Your task to perform on an android device: Search for the best rated headphones on Walmart Image 0: 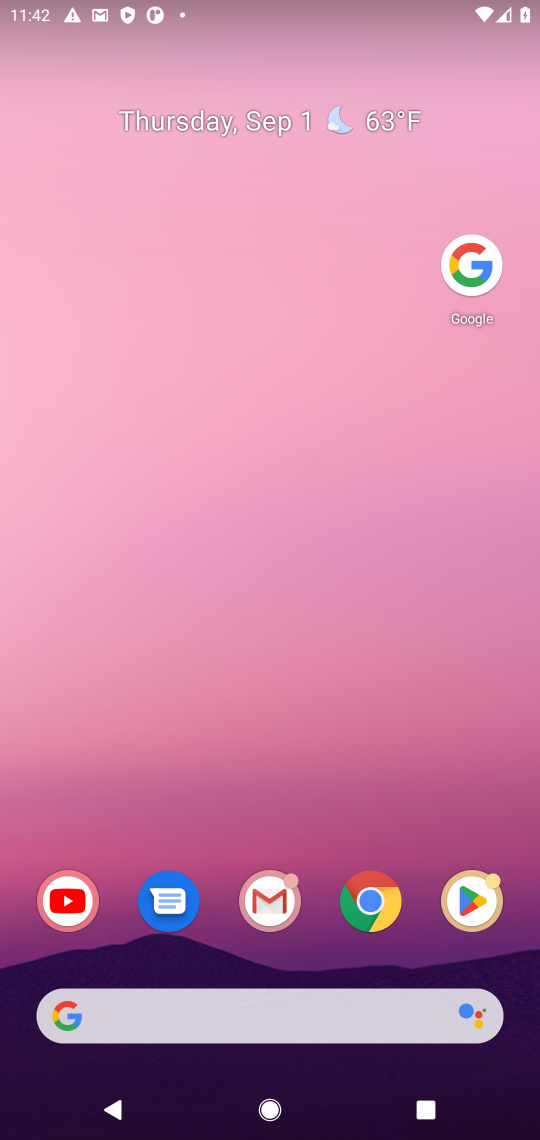
Step 0: click (245, 388)
Your task to perform on an android device: Search for the best rated headphones on Walmart Image 1: 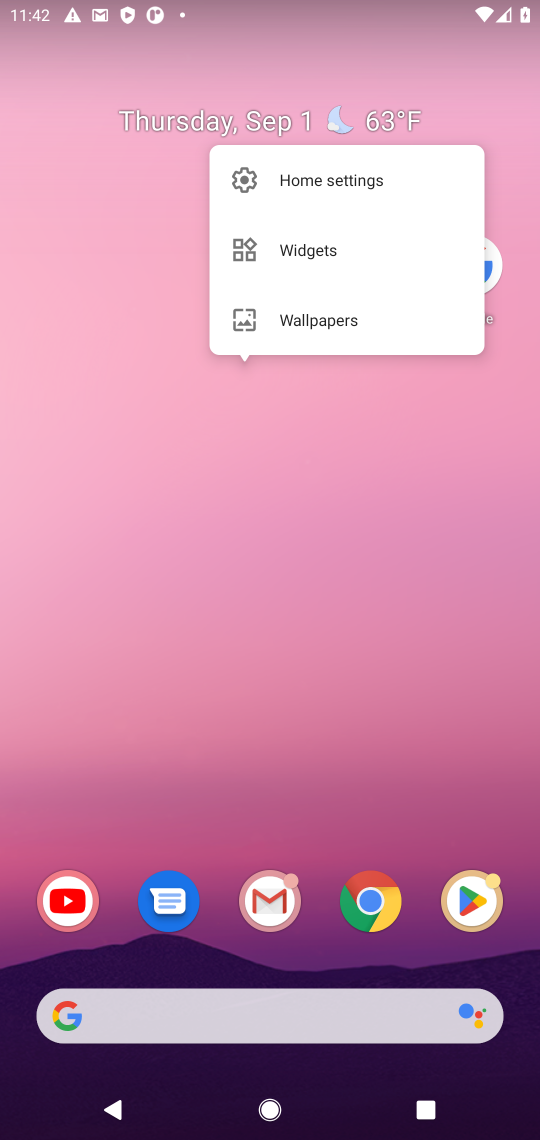
Step 1: click (375, 521)
Your task to perform on an android device: Search for the best rated headphones on Walmart Image 2: 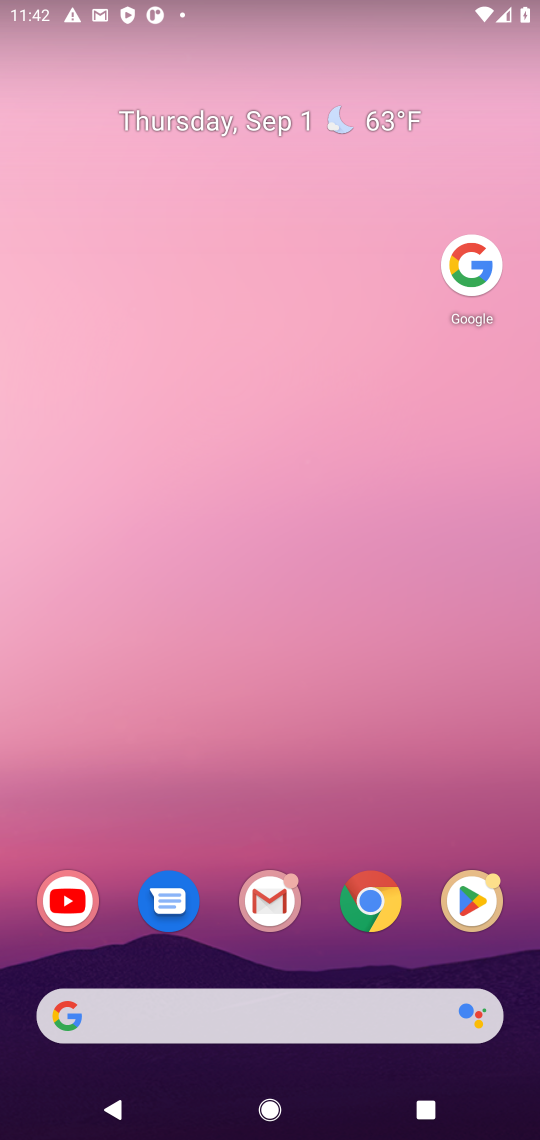
Step 2: click (489, 274)
Your task to perform on an android device: Search for the best rated headphones on Walmart Image 3: 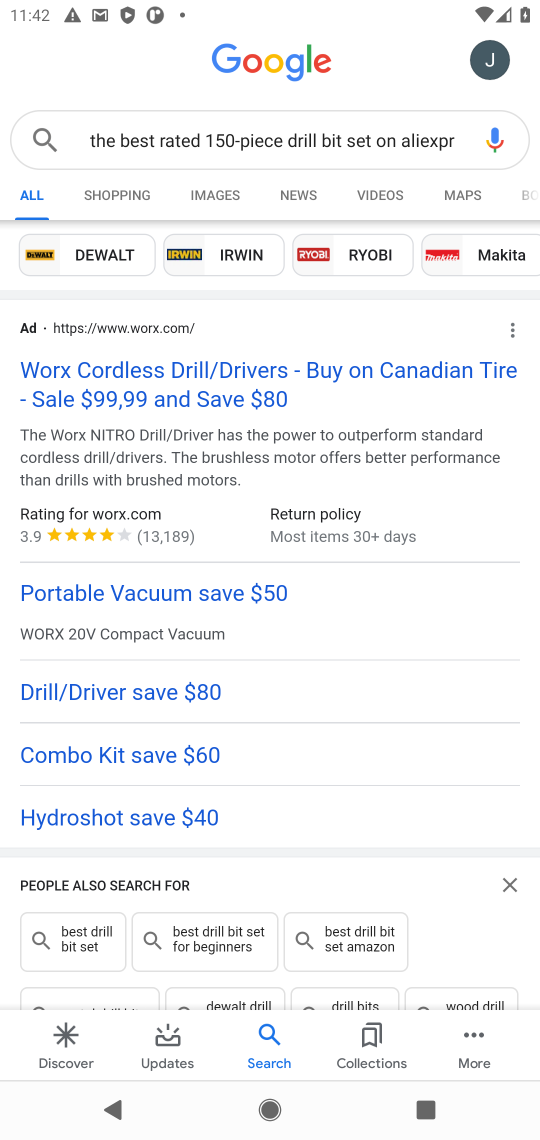
Step 3: click (363, 132)
Your task to perform on an android device: Search for the best rated headphones on Walmart Image 4: 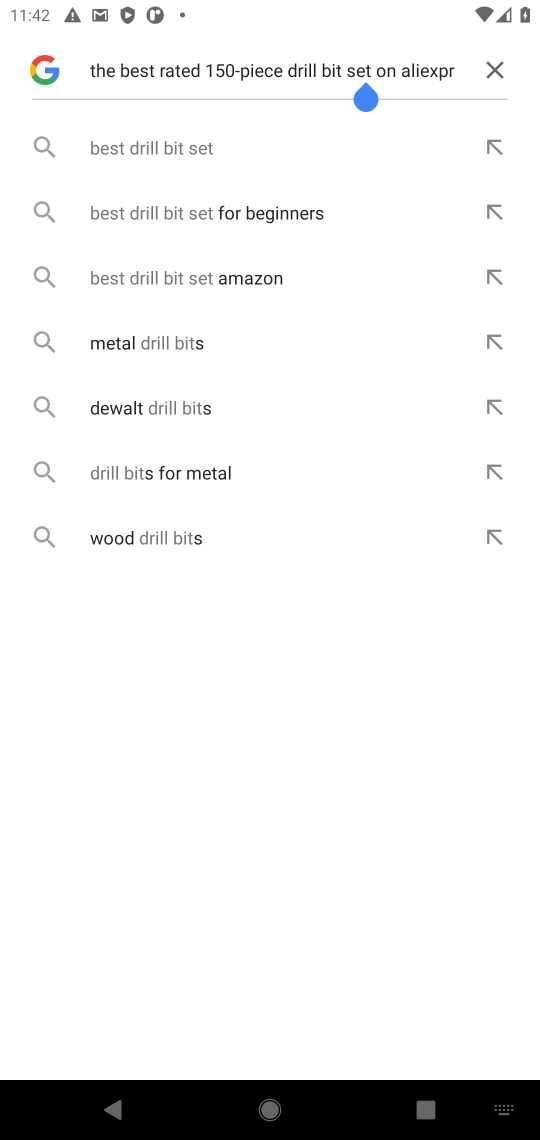
Step 4: click (496, 66)
Your task to perform on an android device: Search for the best rated headphones on Walmart Image 5: 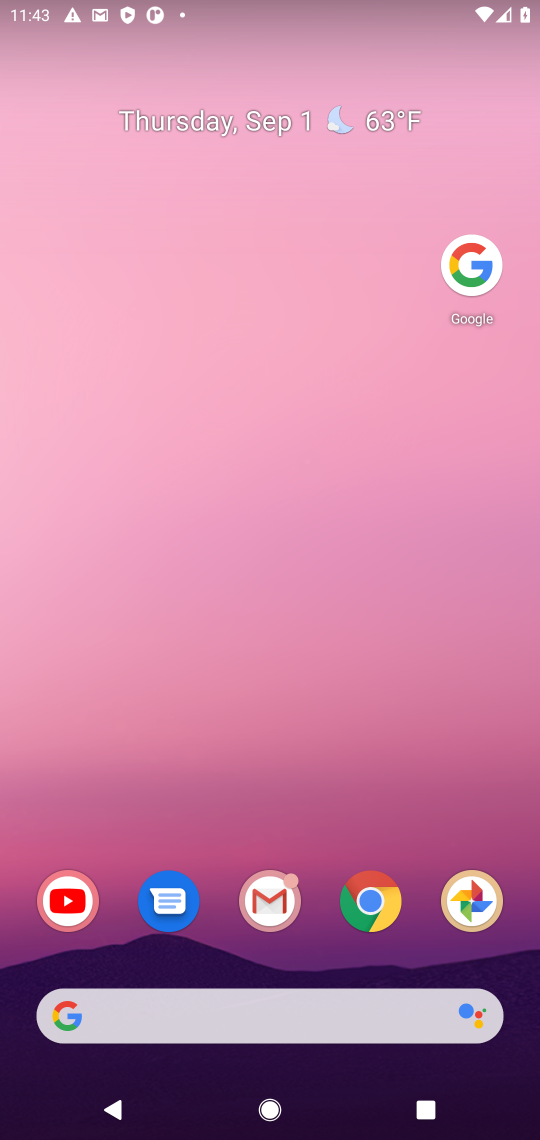
Step 5: click (472, 246)
Your task to perform on an android device: Search for the best rated headphones on Walmart Image 6: 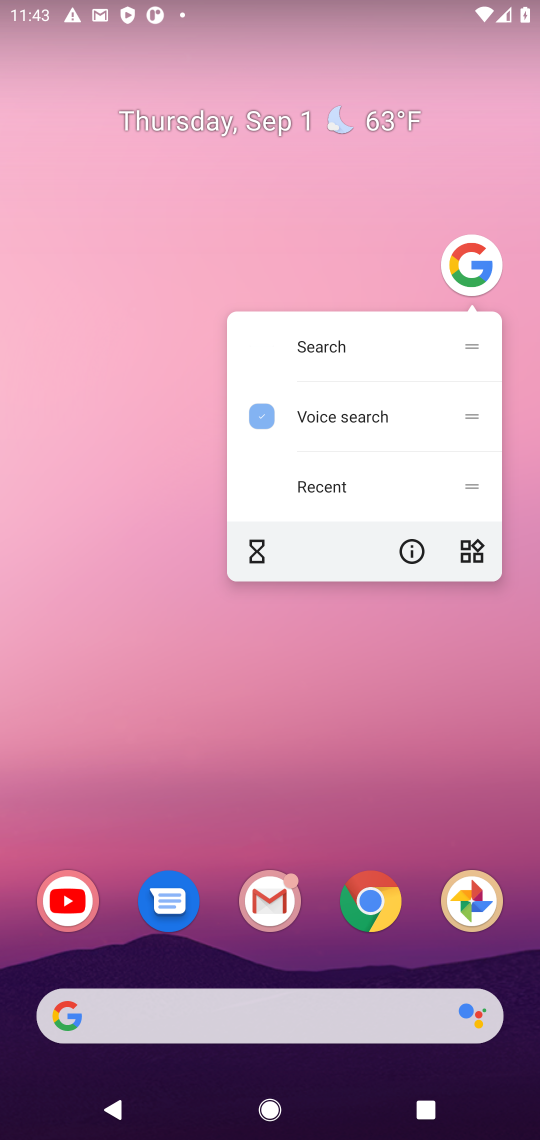
Step 6: click (472, 246)
Your task to perform on an android device: Search for the best rated headphones on Walmart Image 7: 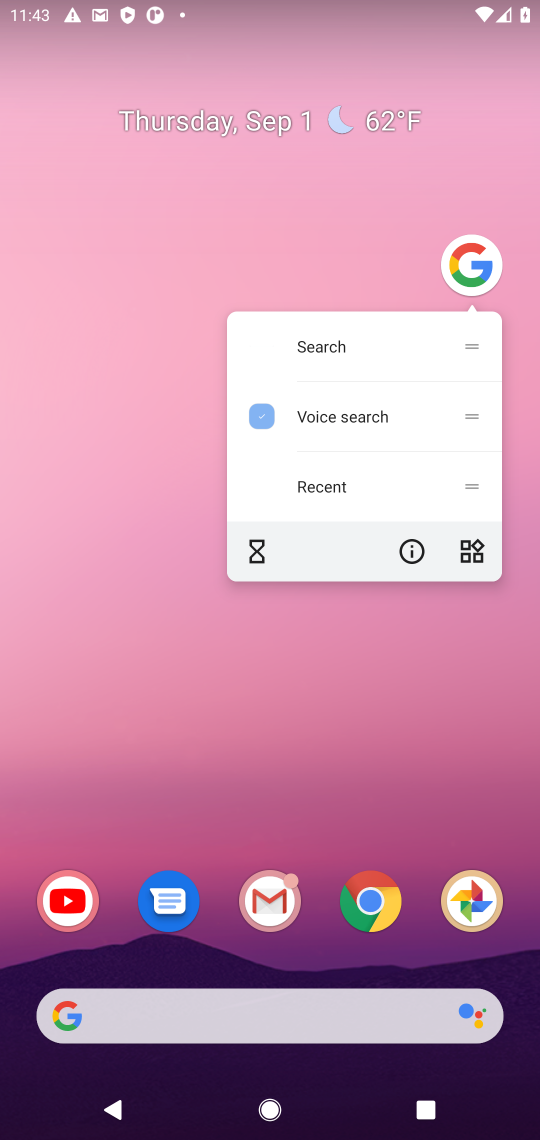
Step 7: click (469, 272)
Your task to perform on an android device: Search for the best rated headphones on Walmart Image 8: 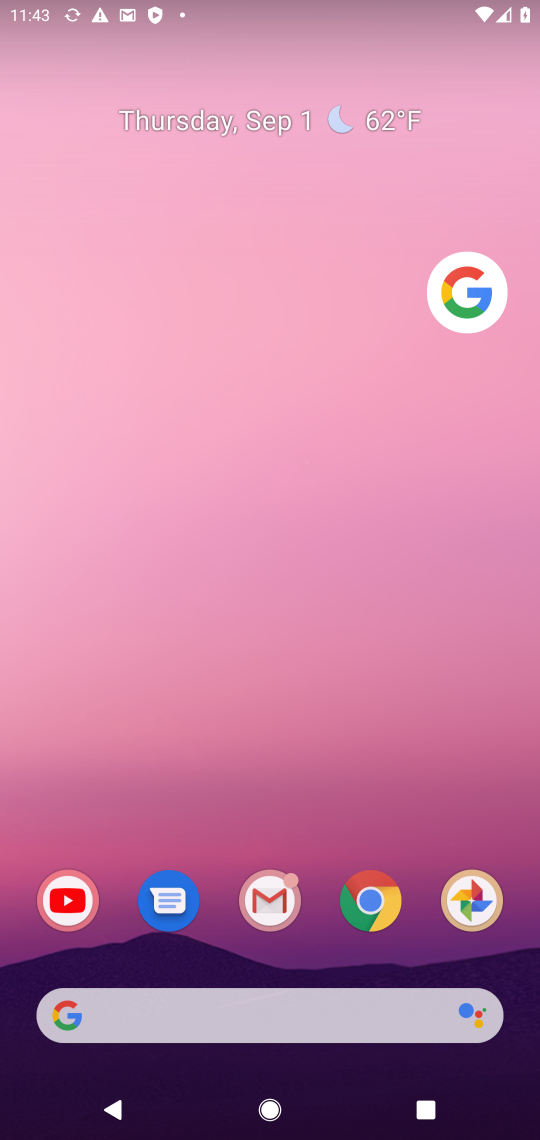
Step 8: click (469, 262)
Your task to perform on an android device: Search for the best rated headphones on Walmart Image 9: 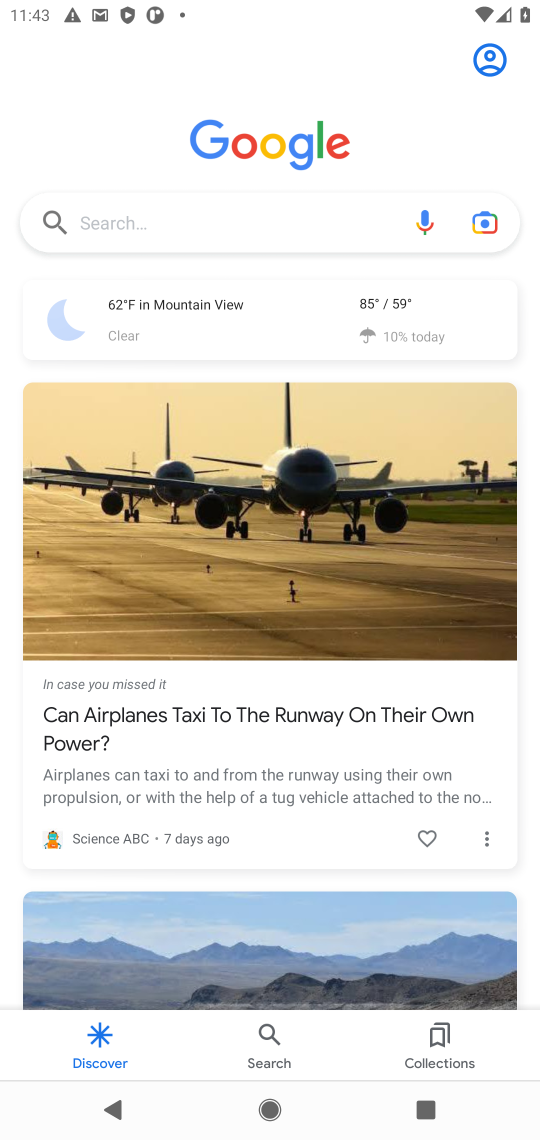
Step 9: click (239, 205)
Your task to perform on an android device: Search for the best rated headphones on Walmart Image 10: 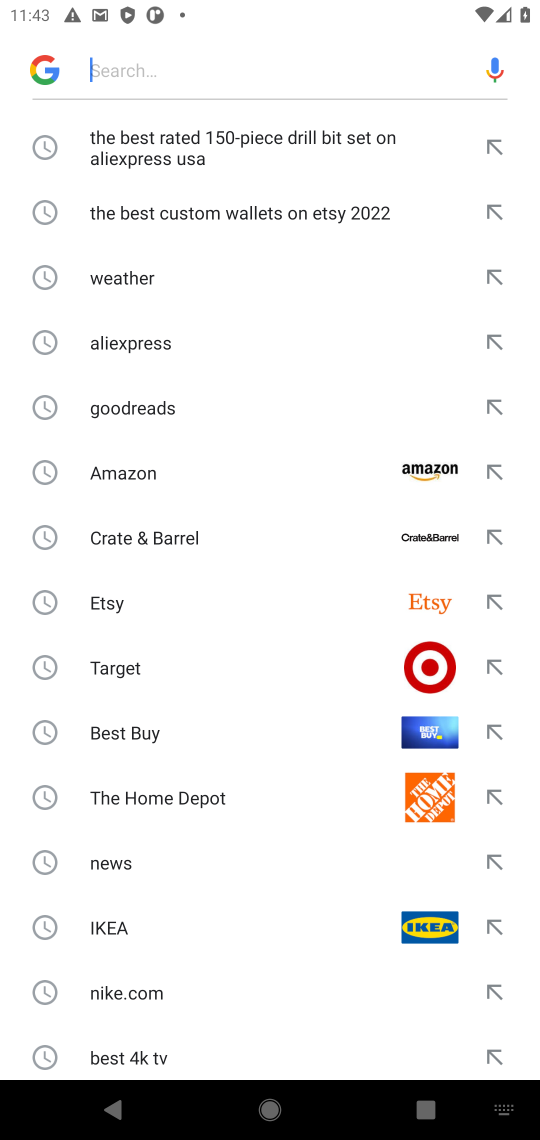
Step 10: type " the best rated headphones on Walmart "
Your task to perform on an android device: Search for the best rated headphones on Walmart Image 11: 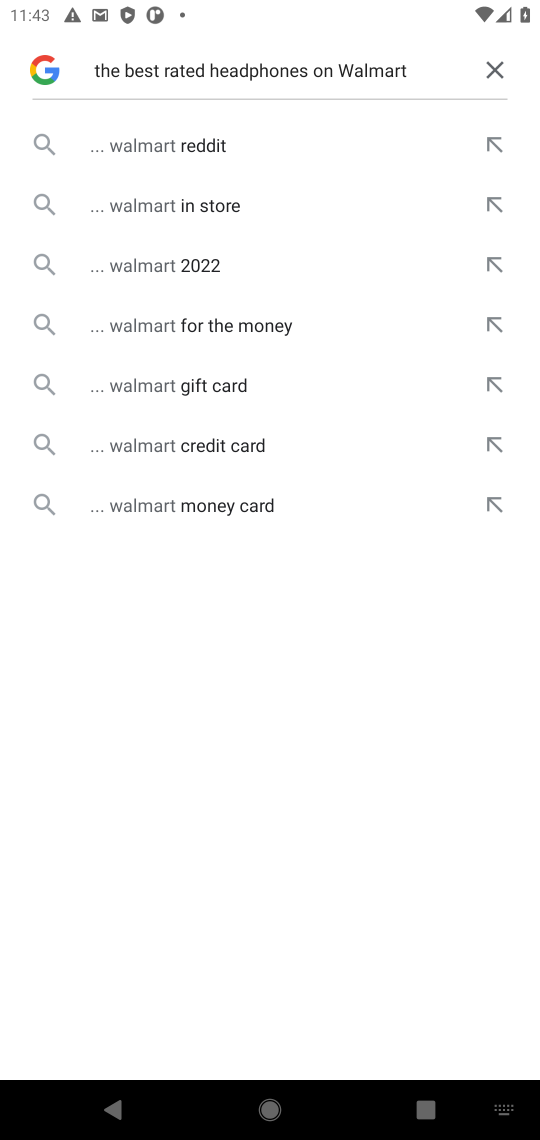
Step 11: click (168, 51)
Your task to perform on an android device: Search for the best rated headphones on Walmart Image 12: 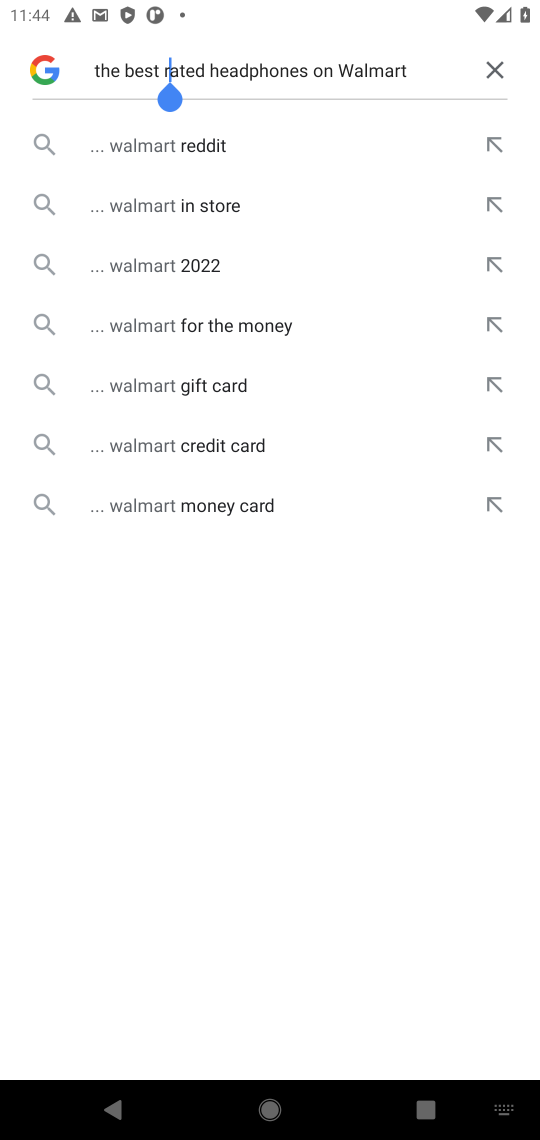
Step 12: click (206, 215)
Your task to perform on an android device: Search for the best rated headphones on Walmart Image 13: 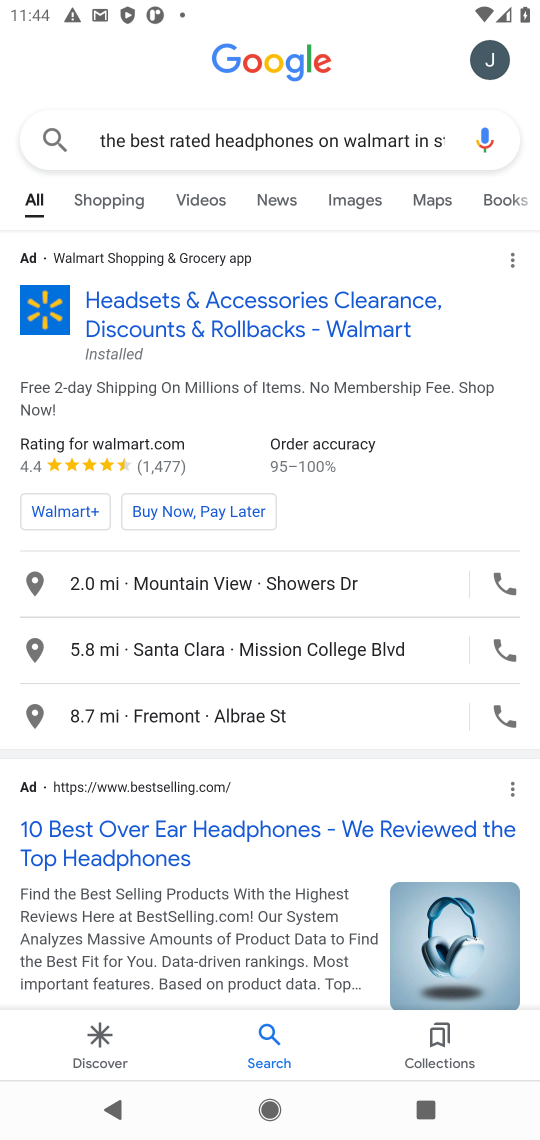
Step 13: click (221, 319)
Your task to perform on an android device: Search for the best rated headphones on Walmart Image 14: 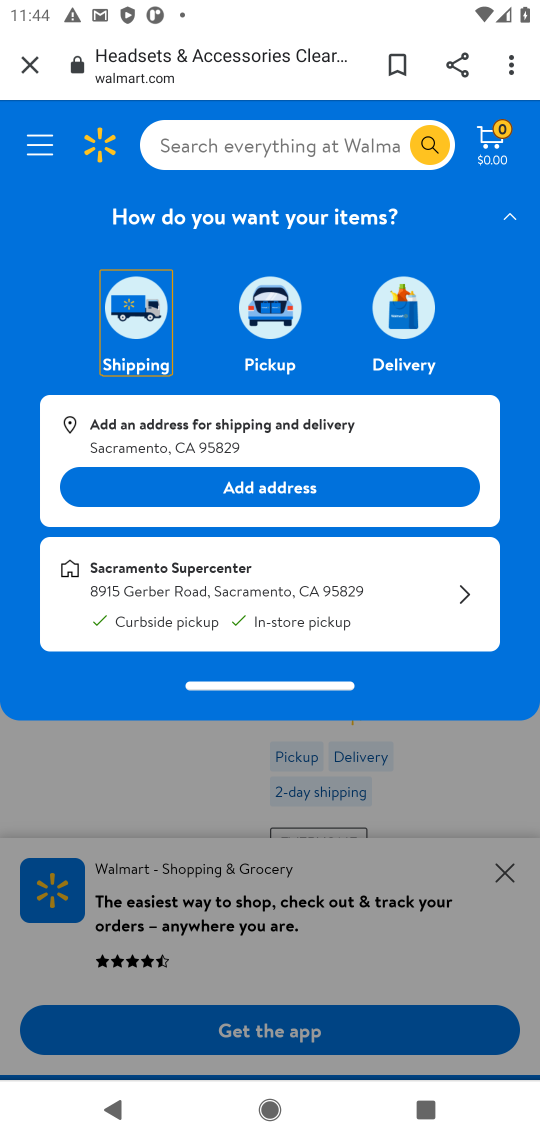
Step 14: click (272, 133)
Your task to perform on an android device: Search for the best rated headphones on Walmart Image 15: 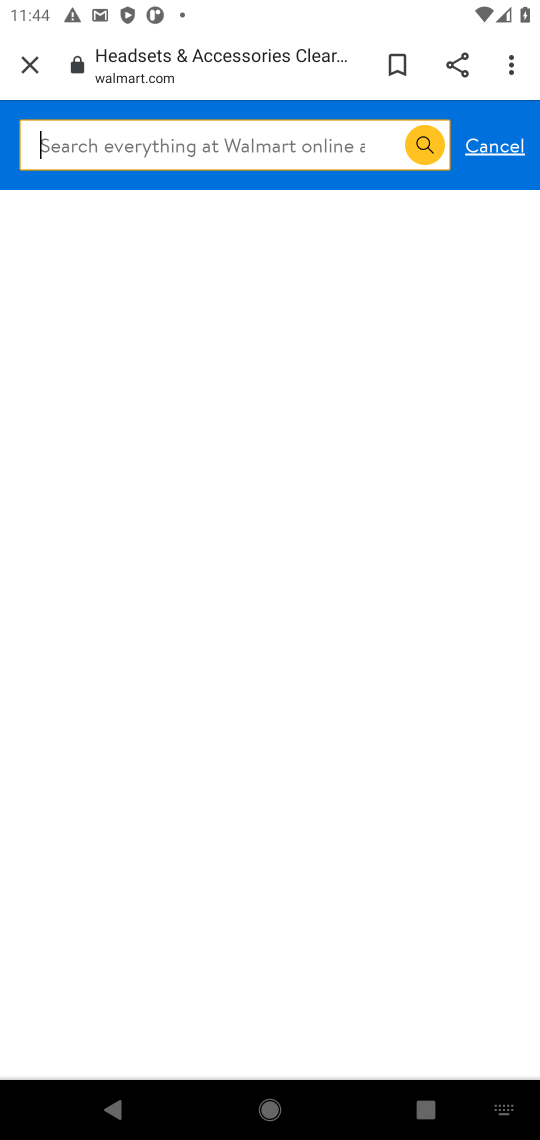
Step 15: type "headphones "
Your task to perform on an android device: Search for the best rated headphones on Walmart Image 16: 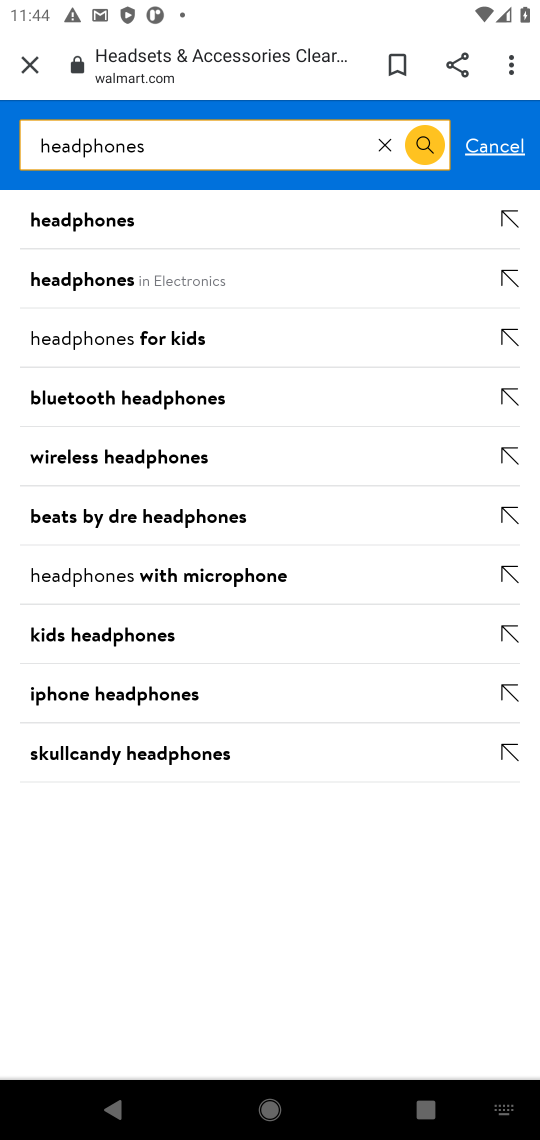
Step 16: click (162, 210)
Your task to perform on an android device: Search for the best rated headphones on Walmart Image 17: 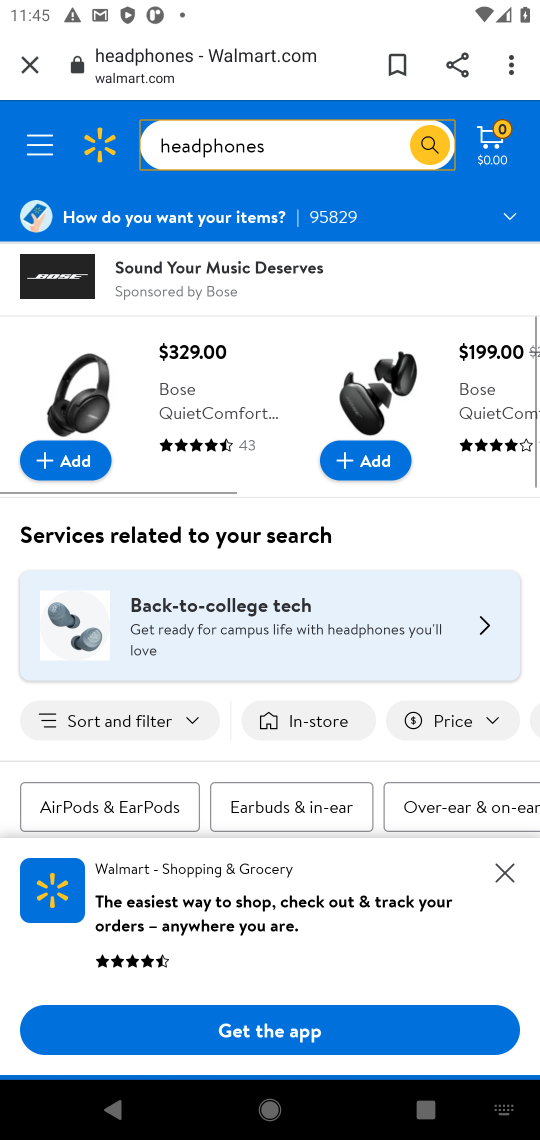
Step 17: task complete